Your task to perform on an android device: Open Google Image 0: 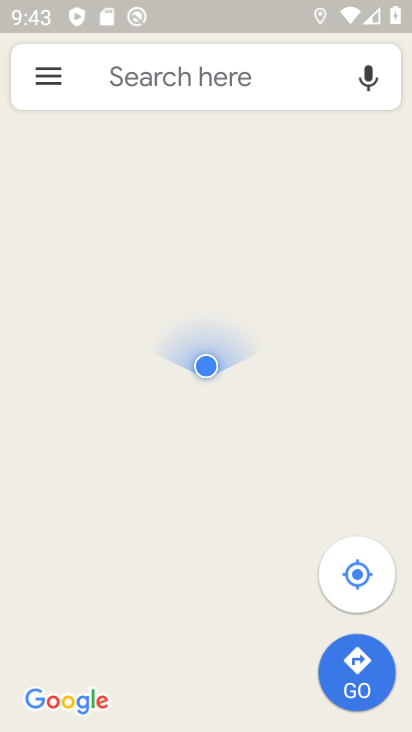
Step 0: press home button
Your task to perform on an android device: Open Google Image 1: 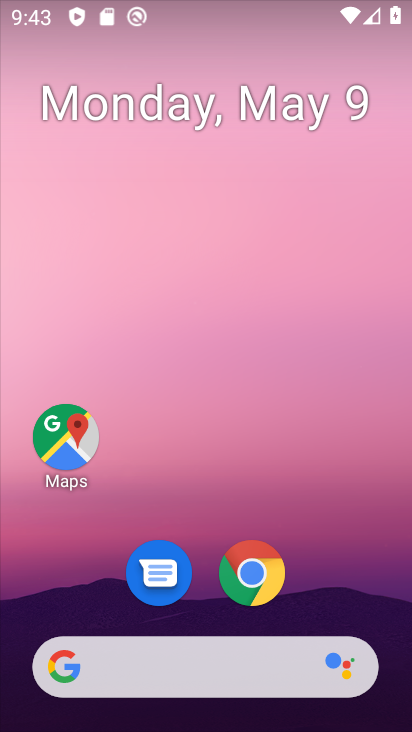
Step 1: drag from (338, 545) to (388, 1)
Your task to perform on an android device: Open Google Image 2: 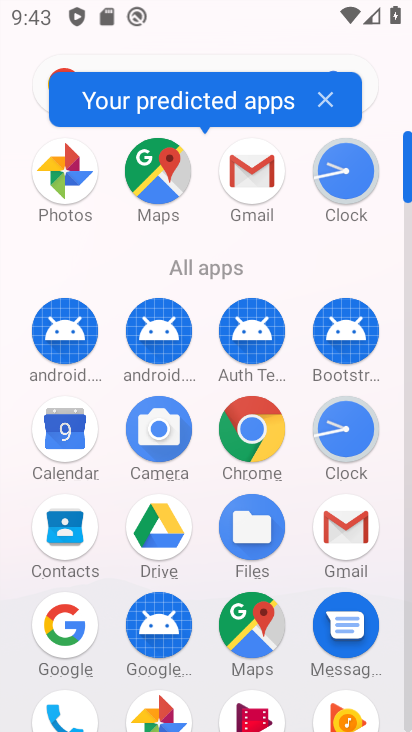
Step 2: click (54, 626)
Your task to perform on an android device: Open Google Image 3: 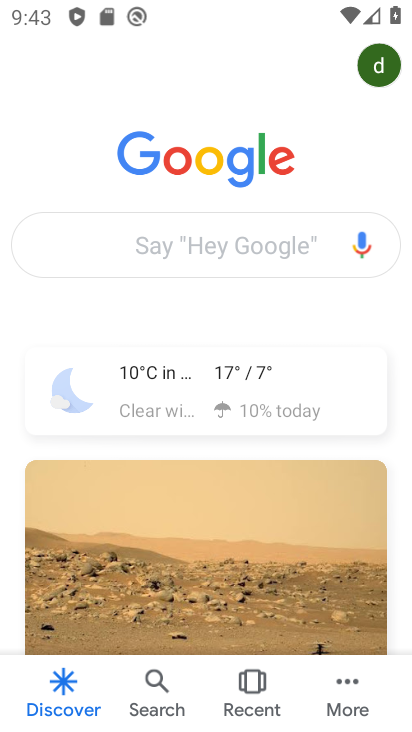
Step 3: task complete